Your task to perform on an android device: Go to wifi settings Image 0: 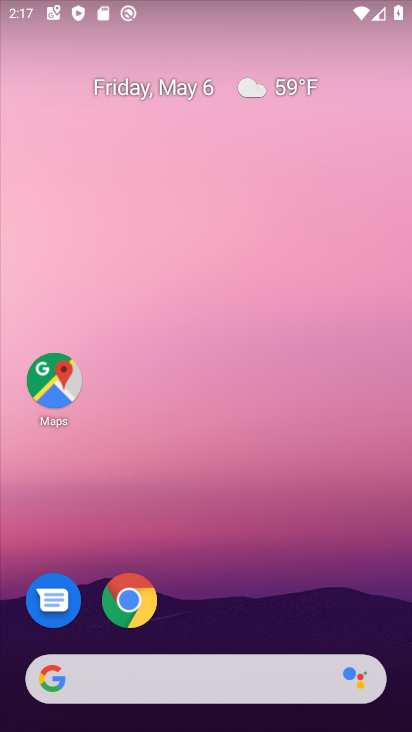
Step 0: drag from (221, 645) to (301, 100)
Your task to perform on an android device: Go to wifi settings Image 1: 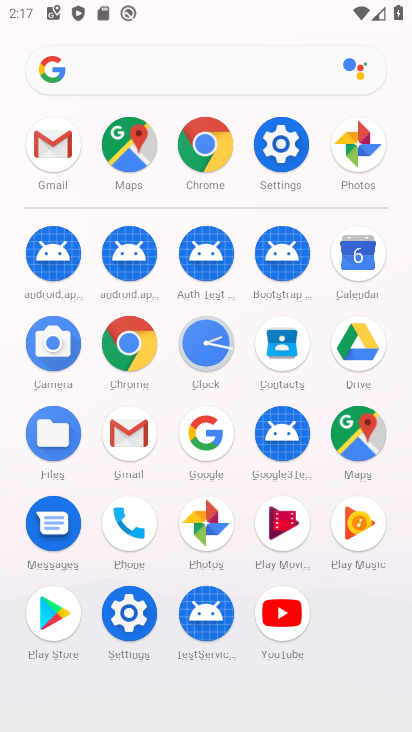
Step 1: click (277, 146)
Your task to perform on an android device: Go to wifi settings Image 2: 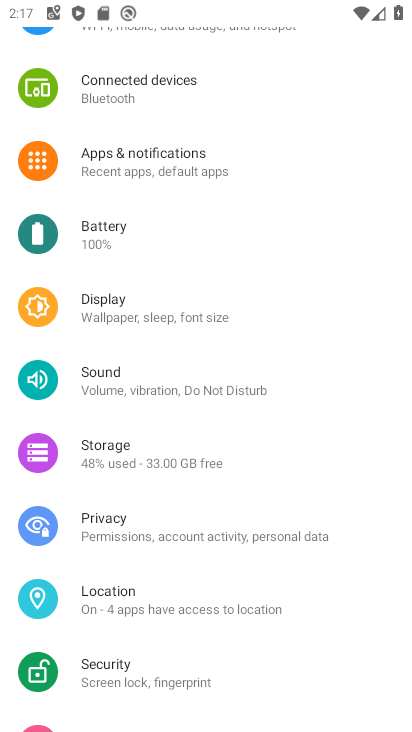
Step 2: drag from (207, 137) to (254, 562)
Your task to perform on an android device: Go to wifi settings Image 3: 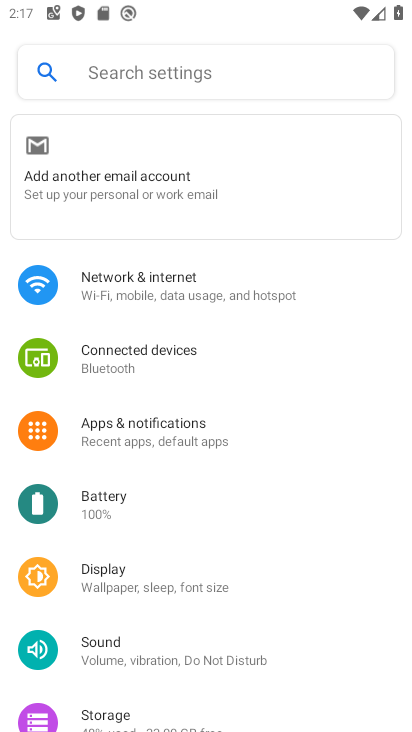
Step 3: click (162, 277)
Your task to perform on an android device: Go to wifi settings Image 4: 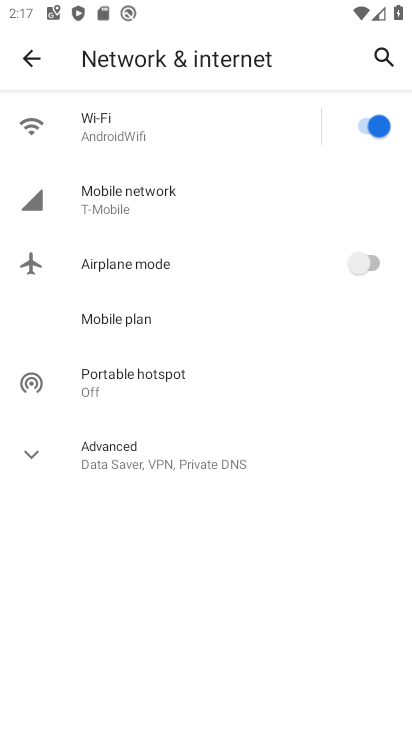
Step 4: click (156, 124)
Your task to perform on an android device: Go to wifi settings Image 5: 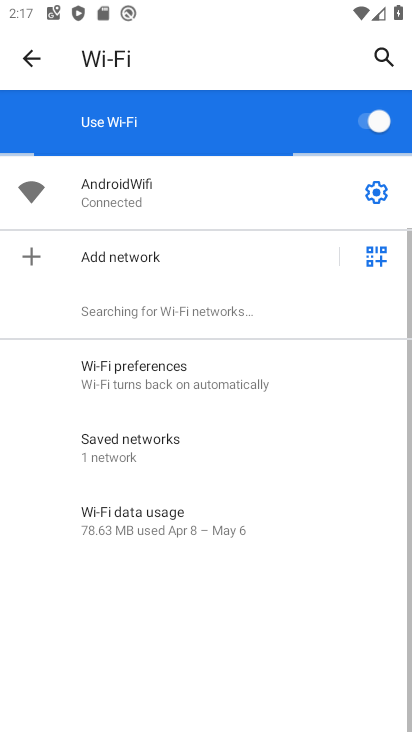
Step 5: click (378, 189)
Your task to perform on an android device: Go to wifi settings Image 6: 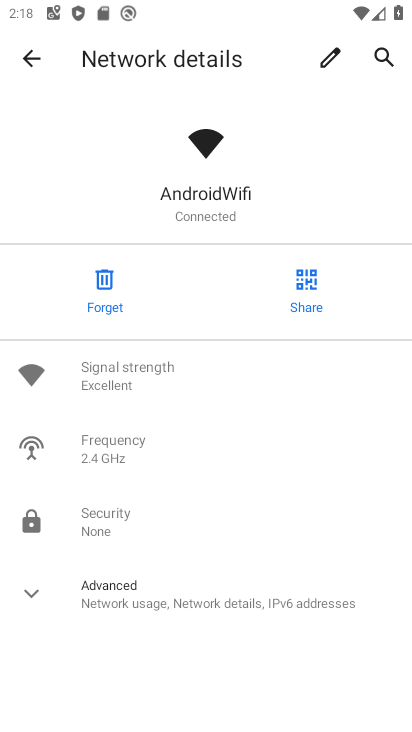
Step 6: task complete